Your task to perform on an android device: turn off improve location accuracy Image 0: 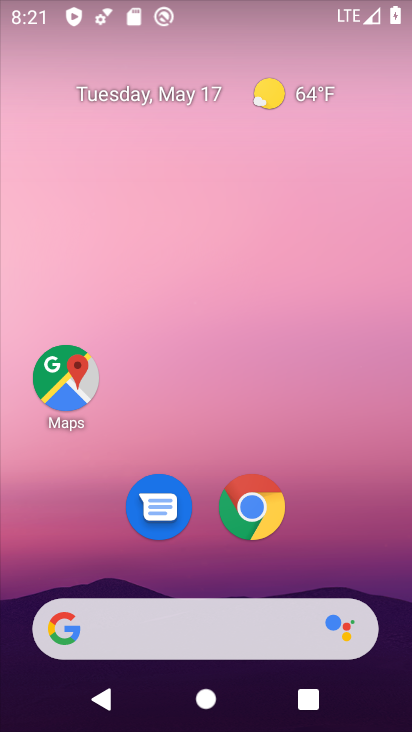
Step 0: drag from (333, 519) to (220, 107)
Your task to perform on an android device: turn off improve location accuracy Image 1: 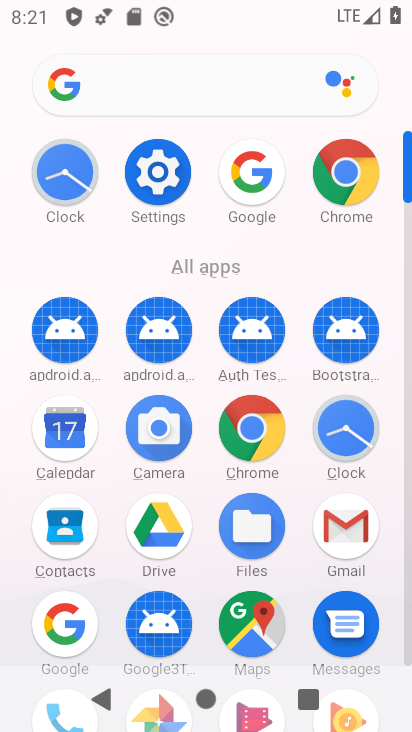
Step 1: click (157, 174)
Your task to perform on an android device: turn off improve location accuracy Image 2: 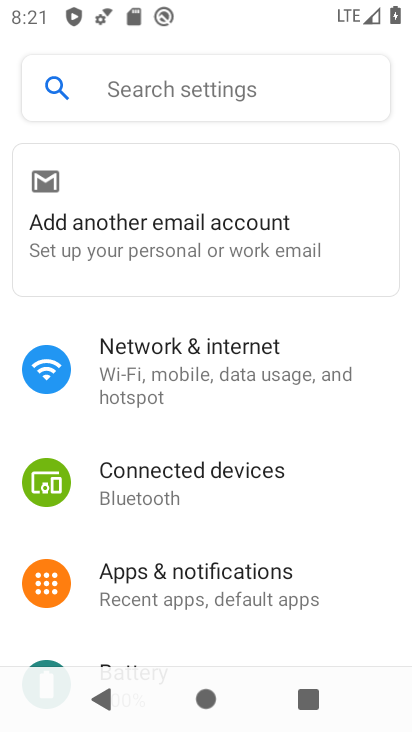
Step 2: drag from (164, 440) to (233, 332)
Your task to perform on an android device: turn off improve location accuracy Image 3: 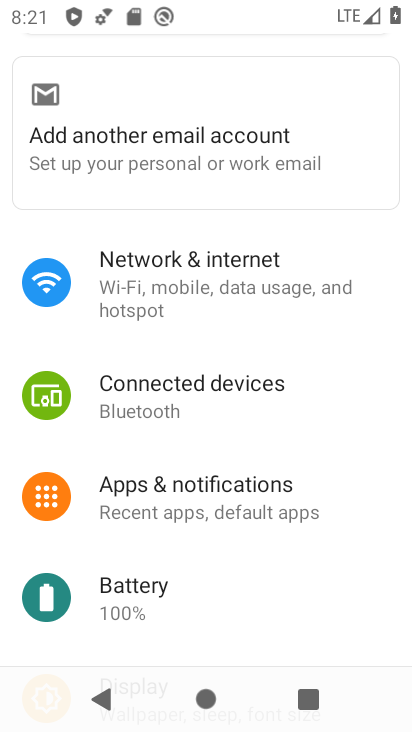
Step 3: drag from (173, 546) to (248, 451)
Your task to perform on an android device: turn off improve location accuracy Image 4: 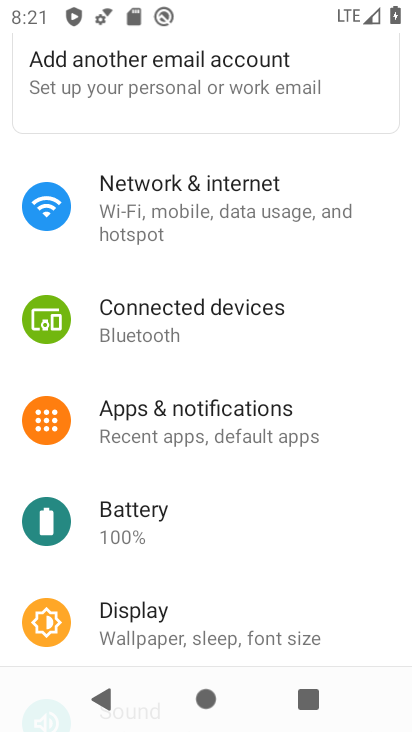
Step 4: drag from (166, 546) to (232, 431)
Your task to perform on an android device: turn off improve location accuracy Image 5: 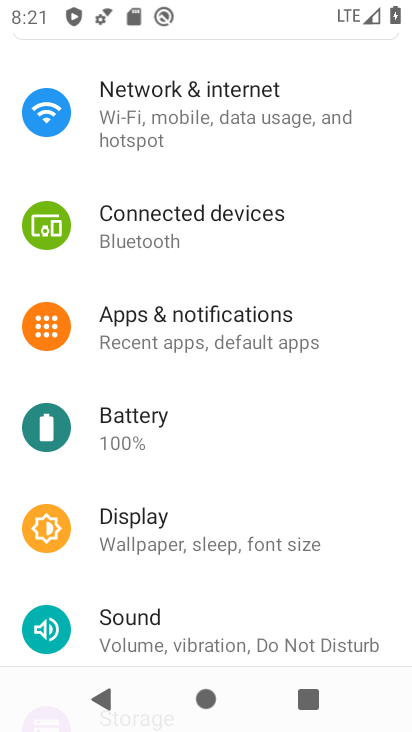
Step 5: drag from (182, 577) to (229, 445)
Your task to perform on an android device: turn off improve location accuracy Image 6: 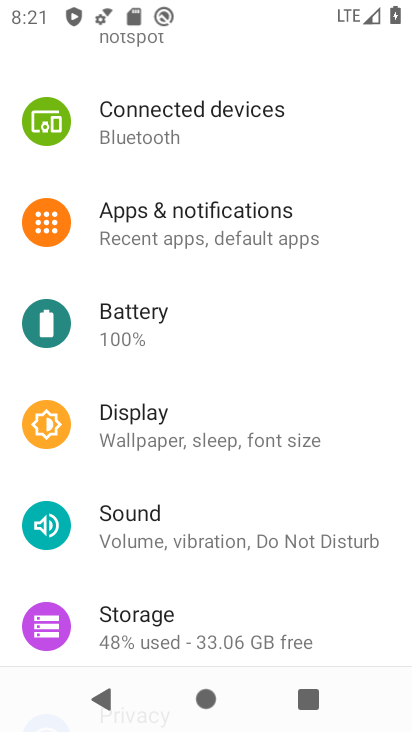
Step 6: drag from (176, 573) to (241, 436)
Your task to perform on an android device: turn off improve location accuracy Image 7: 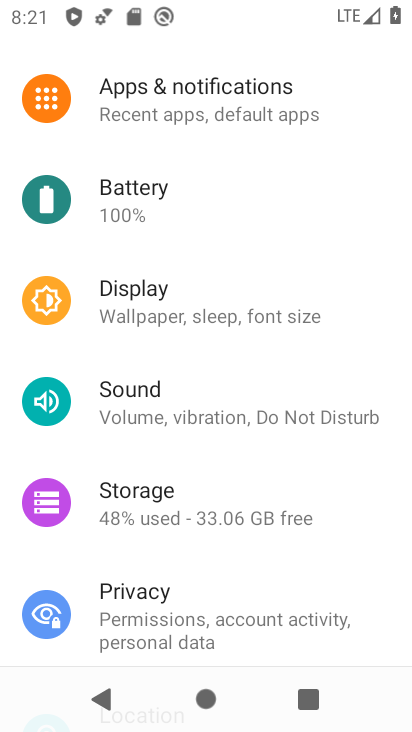
Step 7: drag from (186, 564) to (290, 431)
Your task to perform on an android device: turn off improve location accuracy Image 8: 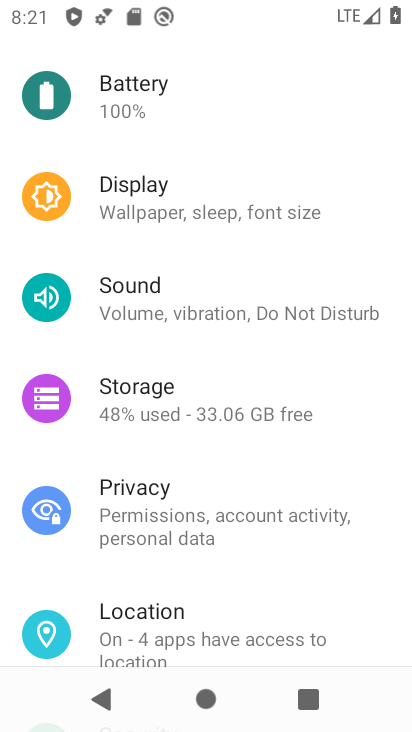
Step 8: drag from (206, 580) to (272, 474)
Your task to perform on an android device: turn off improve location accuracy Image 9: 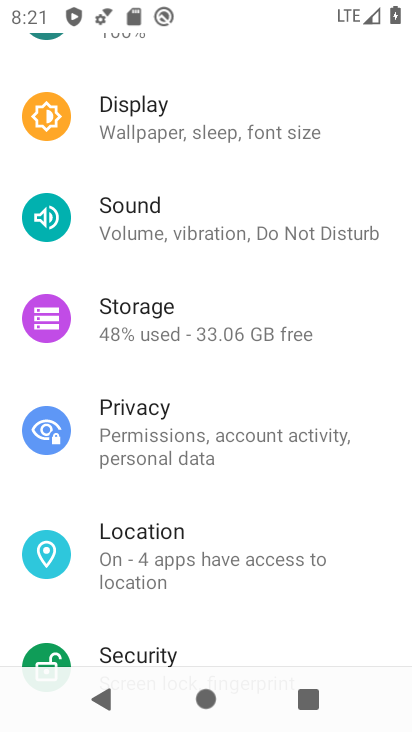
Step 9: click (174, 532)
Your task to perform on an android device: turn off improve location accuracy Image 10: 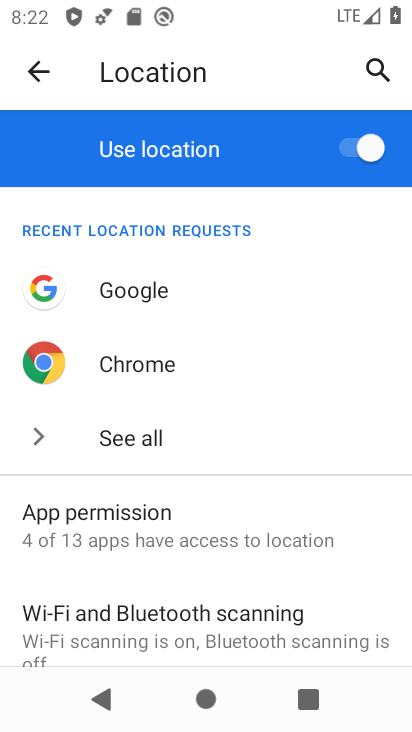
Step 10: drag from (236, 561) to (306, 465)
Your task to perform on an android device: turn off improve location accuracy Image 11: 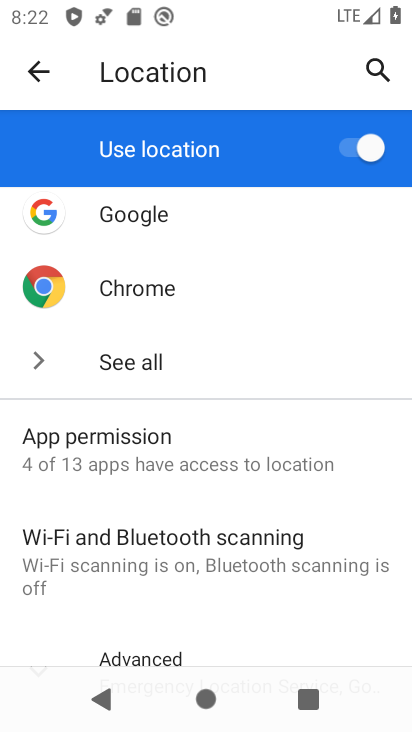
Step 11: drag from (199, 594) to (275, 477)
Your task to perform on an android device: turn off improve location accuracy Image 12: 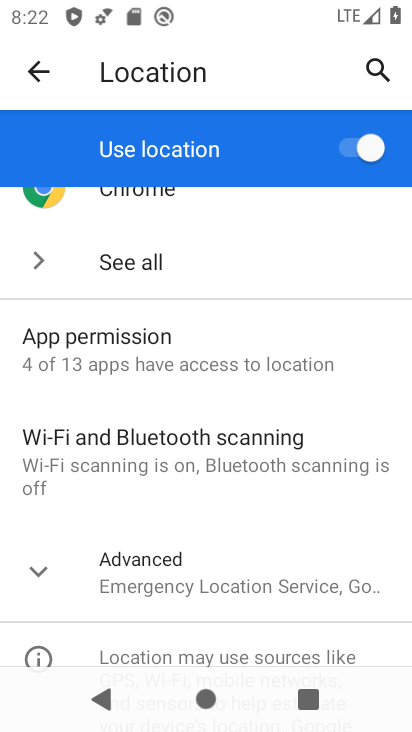
Step 12: click (208, 588)
Your task to perform on an android device: turn off improve location accuracy Image 13: 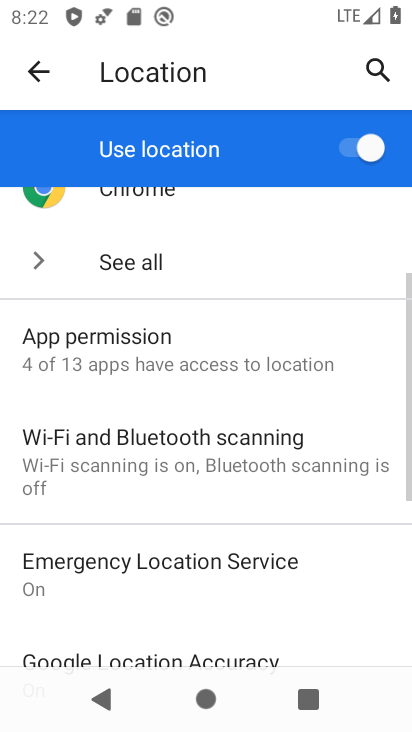
Step 13: drag from (209, 615) to (275, 505)
Your task to perform on an android device: turn off improve location accuracy Image 14: 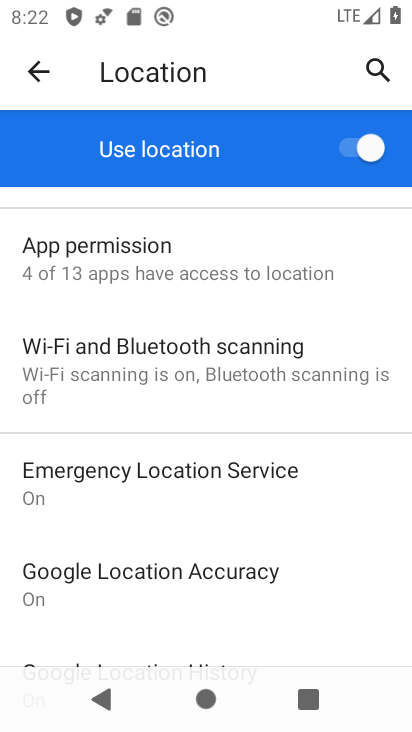
Step 14: click (230, 561)
Your task to perform on an android device: turn off improve location accuracy Image 15: 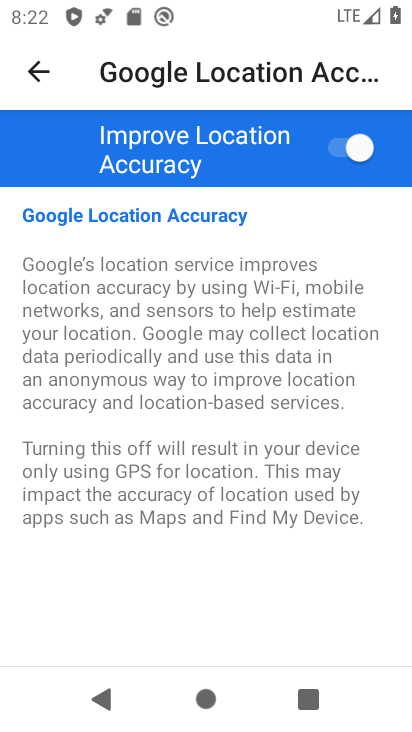
Step 15: click (359, 157)
Your task to perform on an android device: turn off improve location accuracy Image 16: 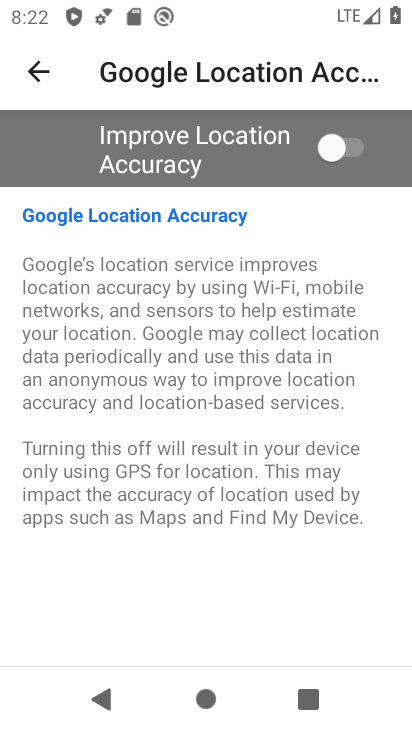
Step 16: task complete